Your task to perform on an android device: turn off location history Image 0: 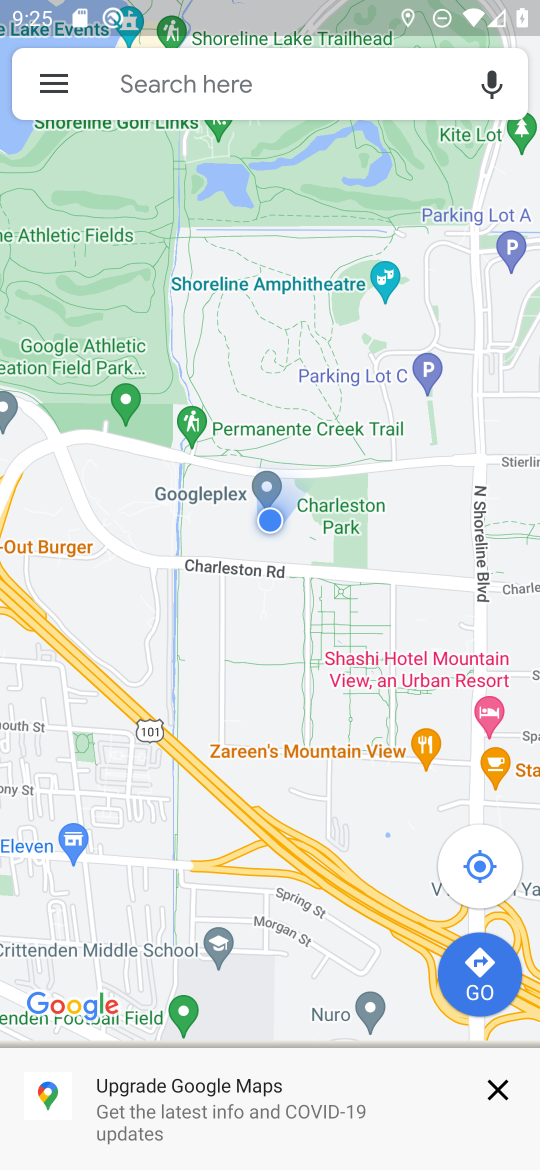
Step 0: press home button
Your task to perform on an android device: turn off location history Image 1: 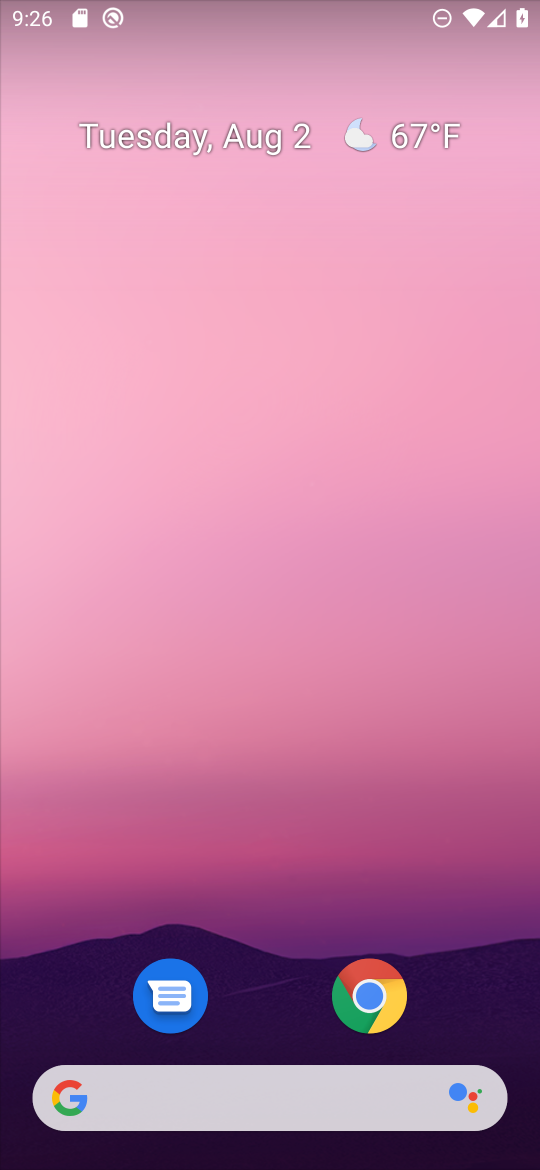
Step 1: drag from (246, 1003) to (270, 74)
Your task to perform on an android device: turn off location history Image 2: 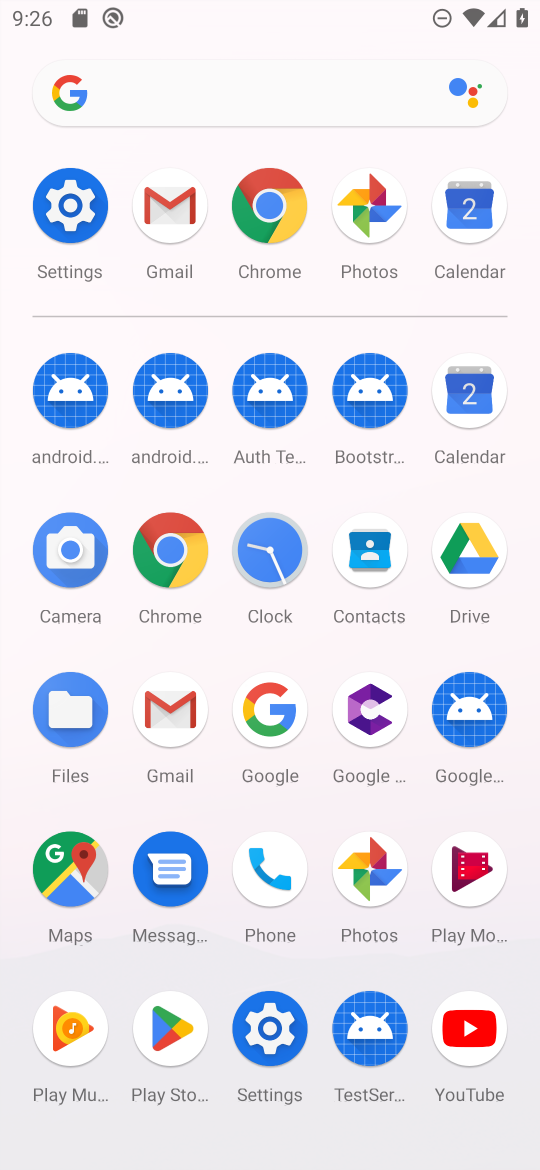
Step 2: click (281, 1017)
Your task to perform on an android device: turn off location history Image 3: 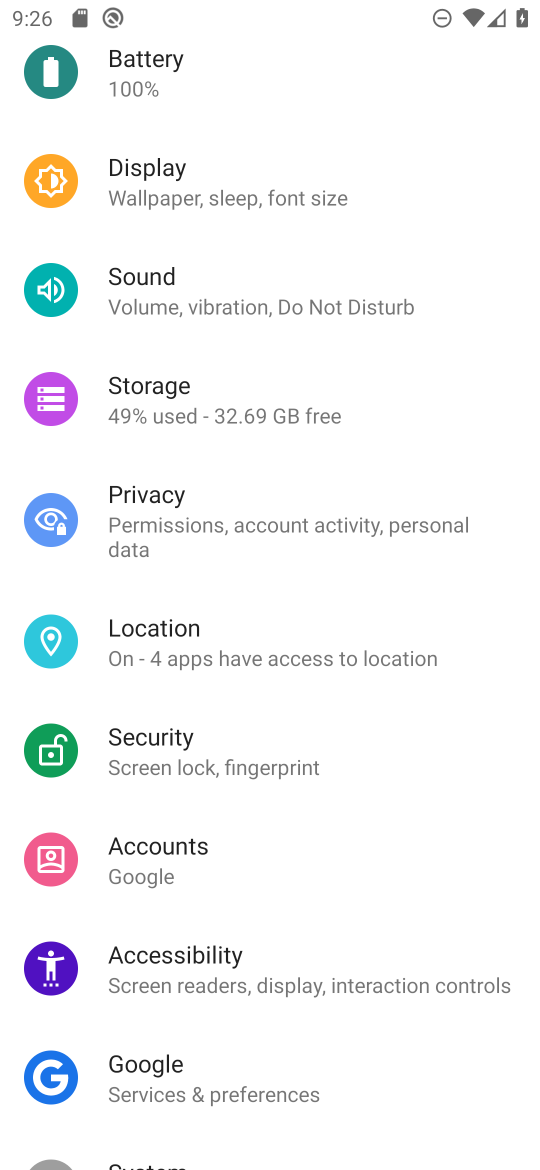
Step 3: press home button
Your task to perform on an android device: turn off location history Image 4: 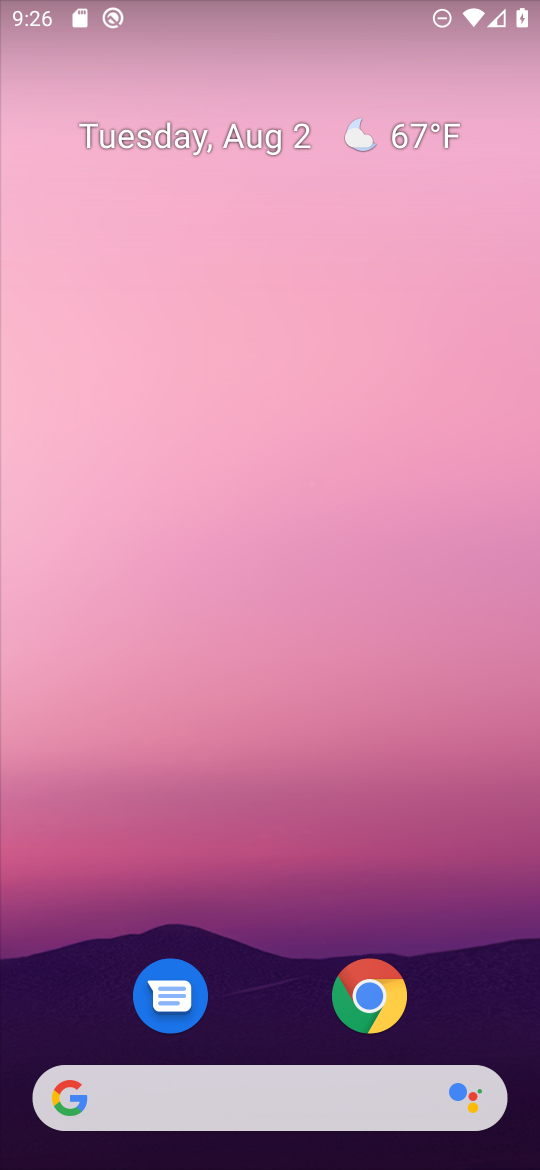
Step 4: drag from (303, 958) to (294, 80)
Your task to perform on an android device: turn off location history Image 5: 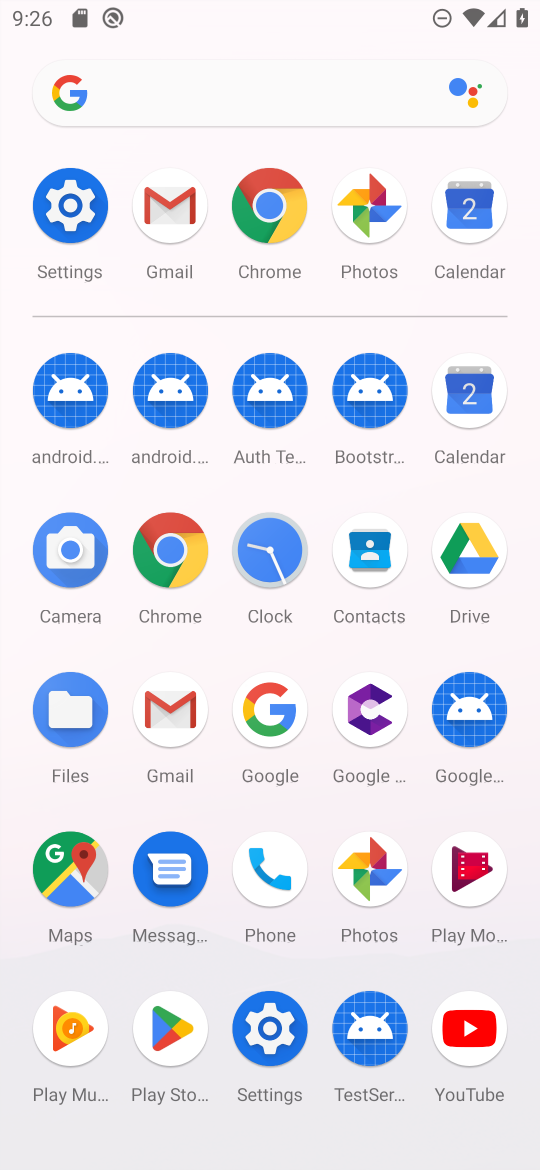
Step 5: click (85, 851)
Your task to perform on an android device: turn off location history Image 6: 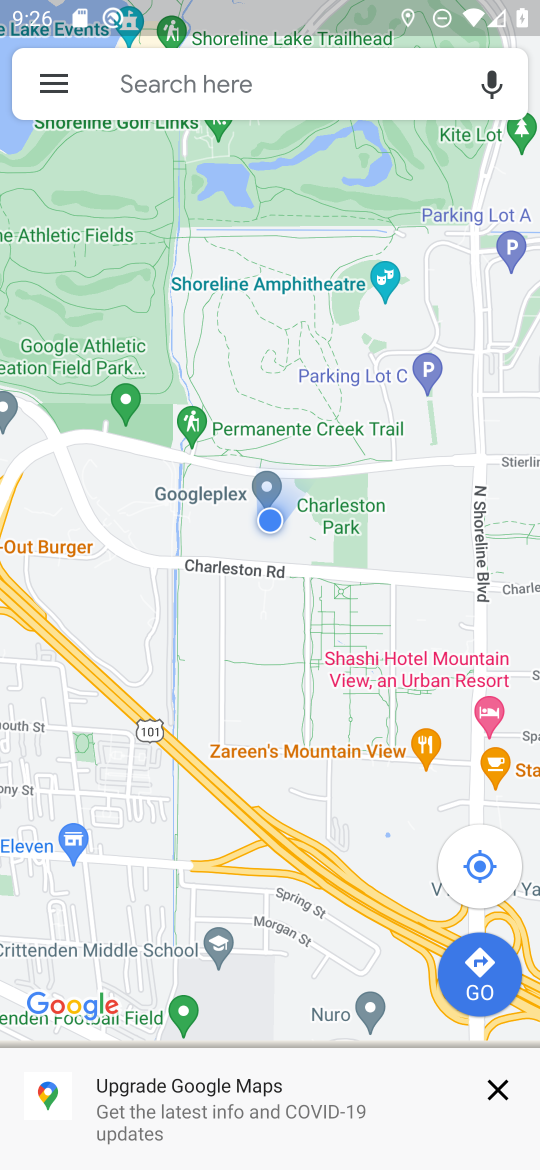
Step 6: click (52, 79)
Your task to perform on an android device: turn off location history Image 7: 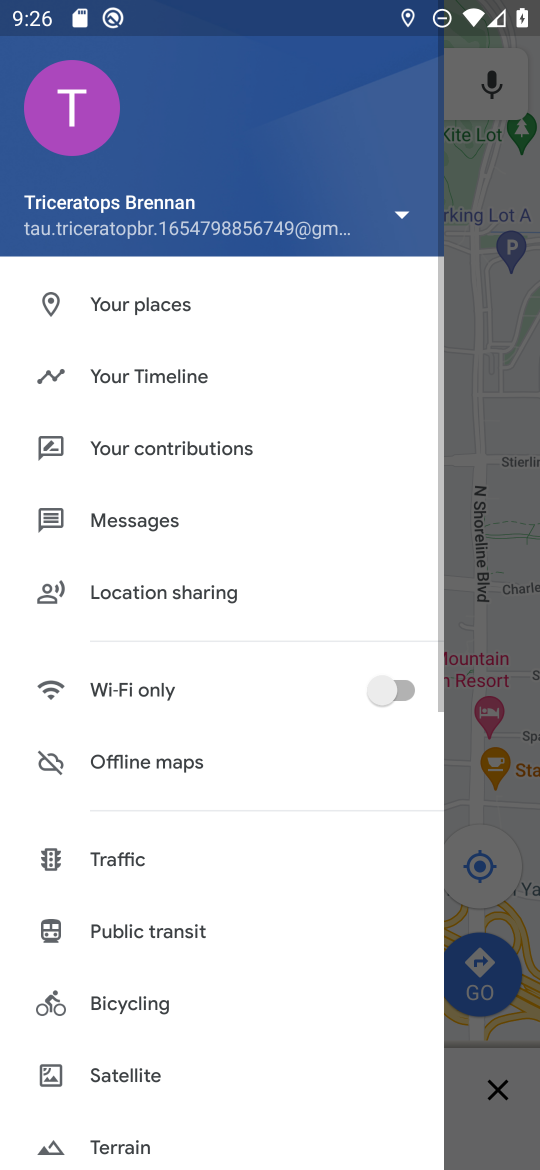
Step 7: click (124, 369)
Your task to perform on an android device: turn off location history Image 8: 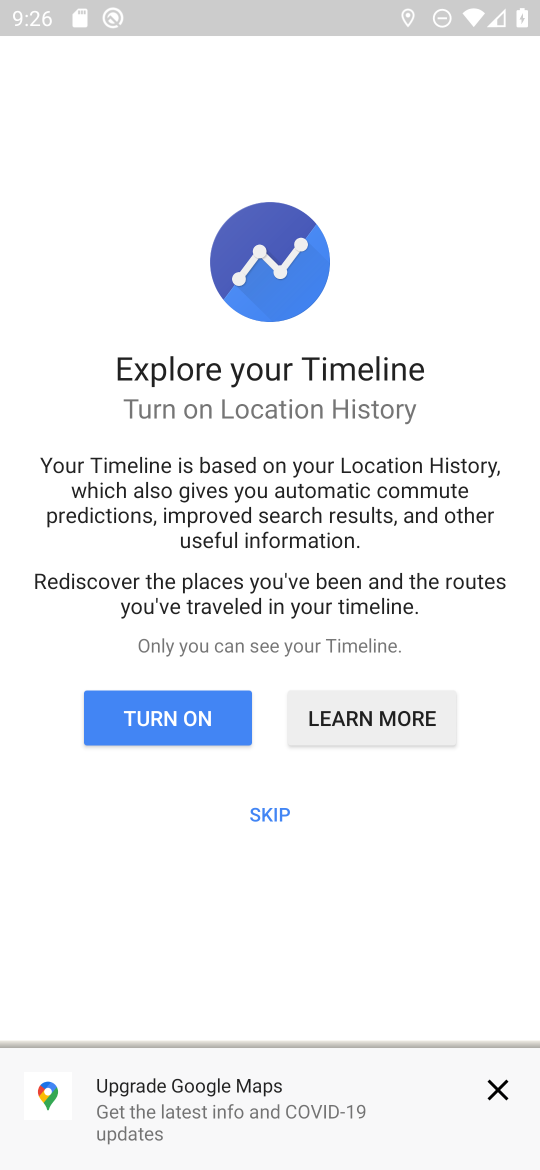
Step 8: click (177, 710)
Your task to perform on an android device: turn off location history Image 9: 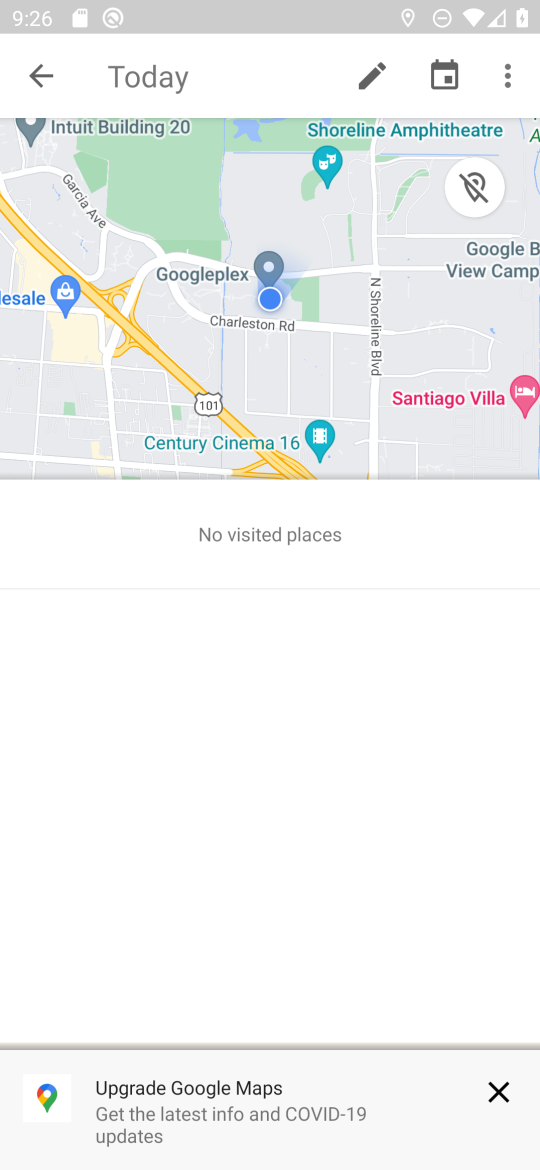
Step 9: click (509, 72)
Your task to perform on an android device: turn off location history Image 10: 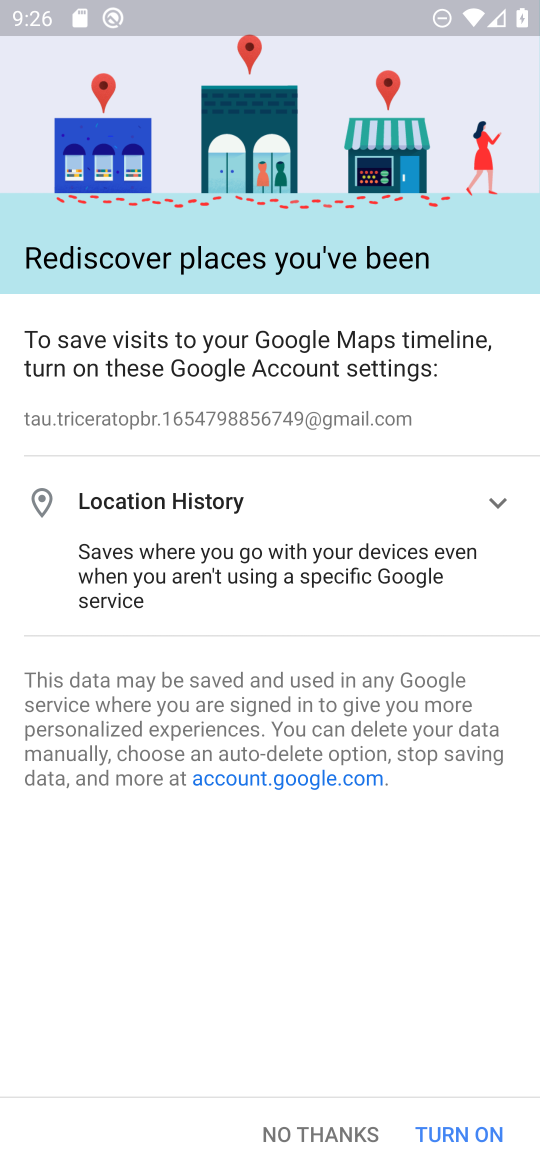
Step 10: click (468, 1122)
Your task to perform on an android device: turn off location history Image 11: 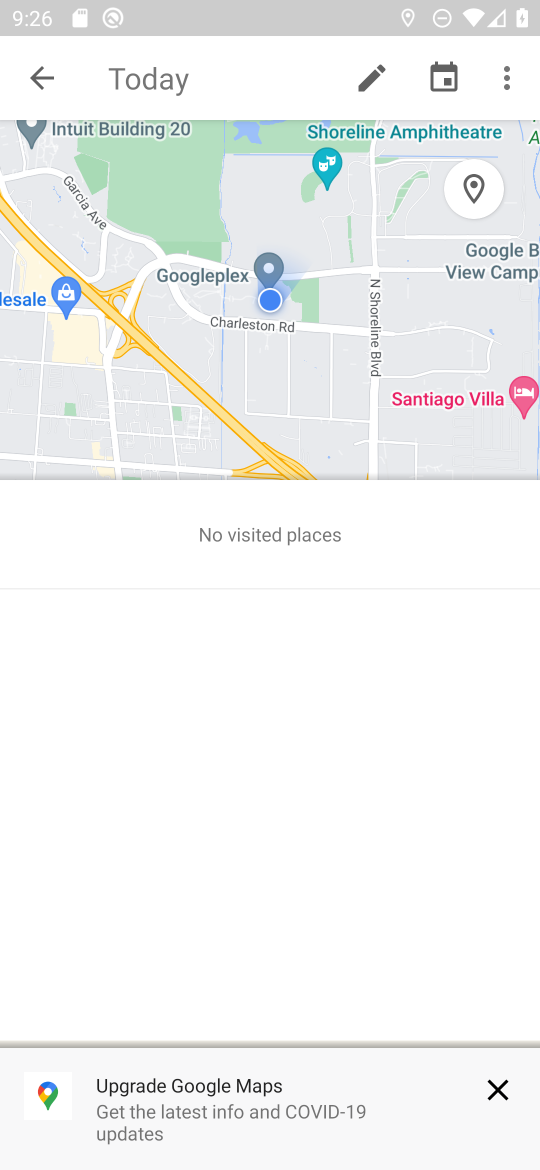
Step 11: click (506, 64)
Your task to perform on an android device: turn off location history Image 12: 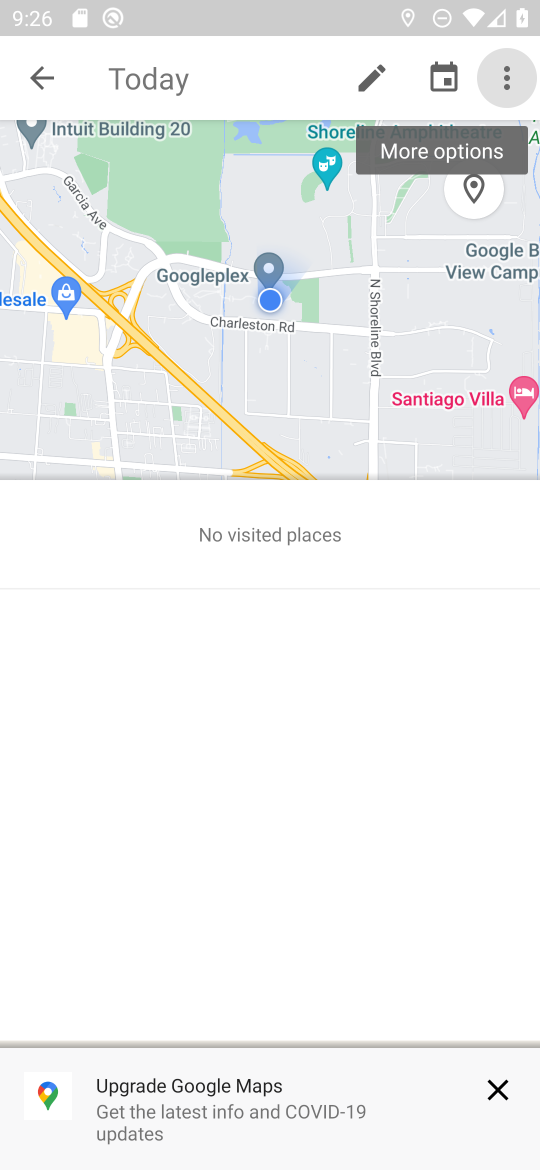
Step 12: click (503, 75)
Your task to perform on an android device: turn off location history Image 13: 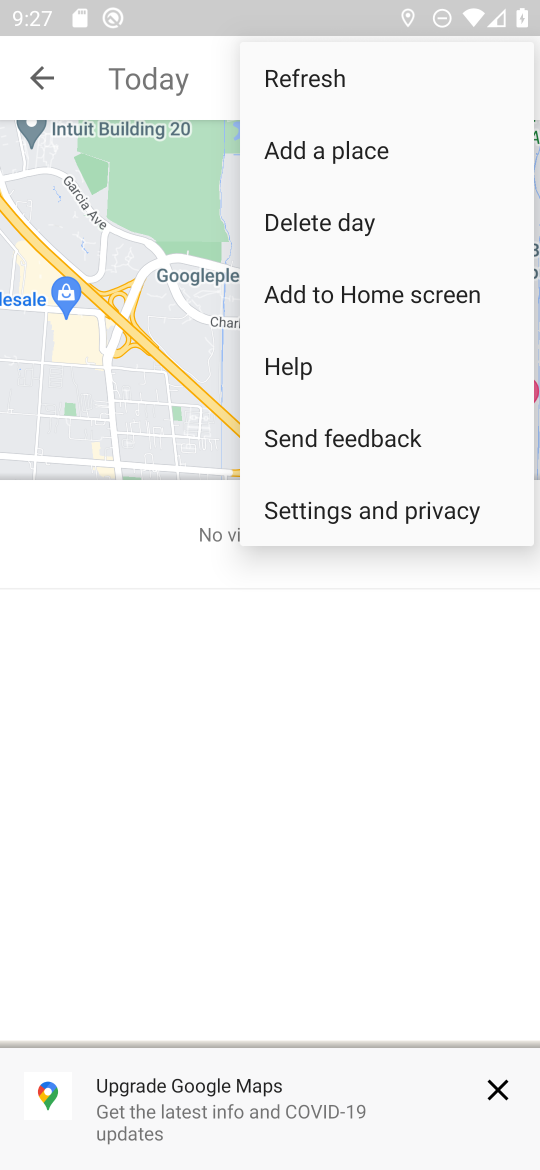
Step 13: click (344, 505)
Your task to perform on an android device: turn off location history Image 14: 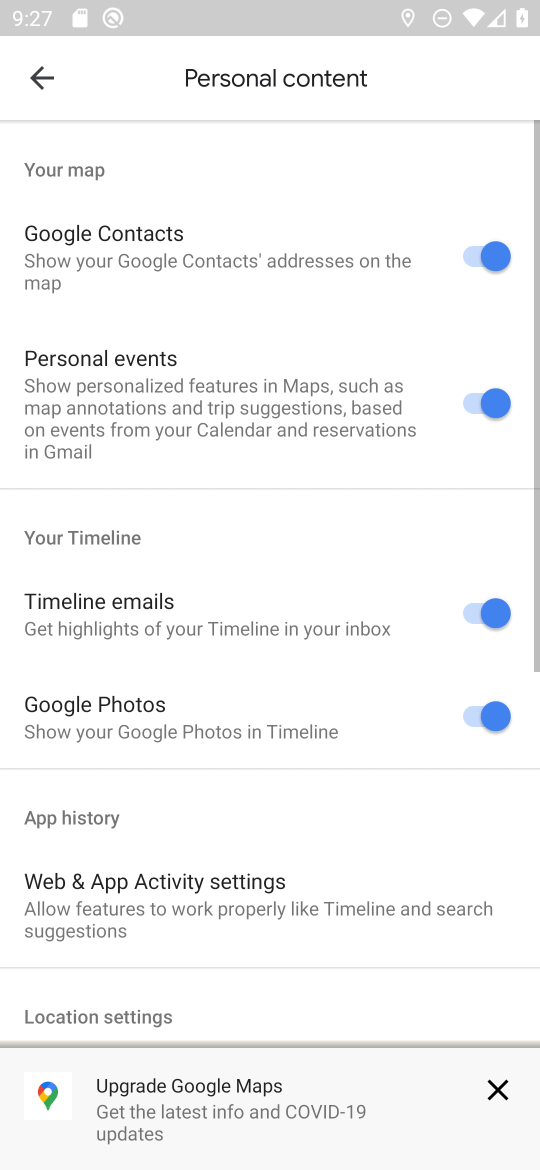
Step 14: drag from (303, 856) to (305, 130)
Your task to perform on an android device: turn off location history Image 15: 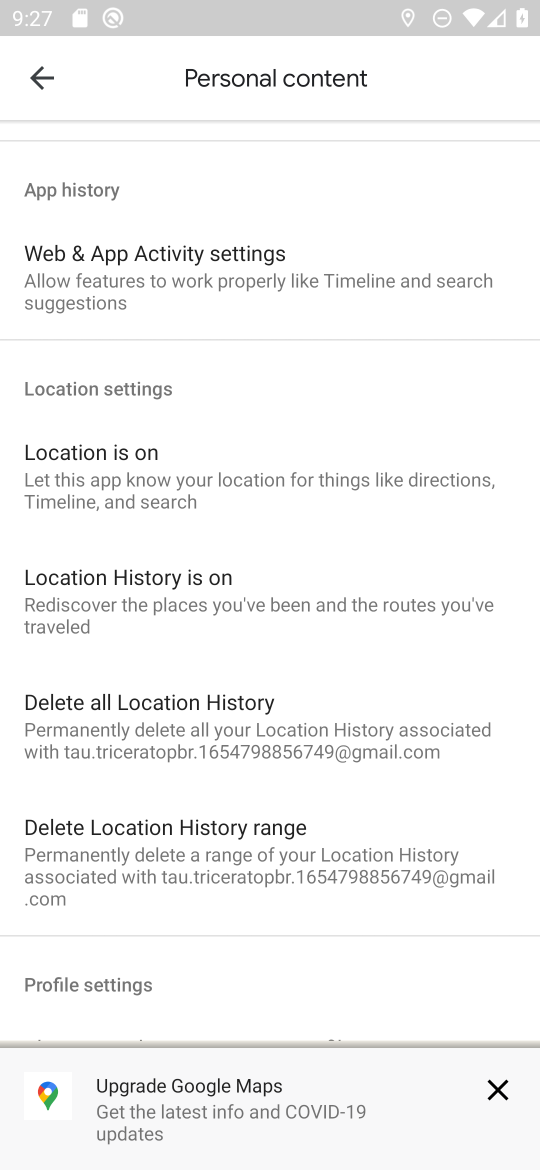
Step 15: click (119, 573)
Your task to perform on an android device: turn off location history Image 16: 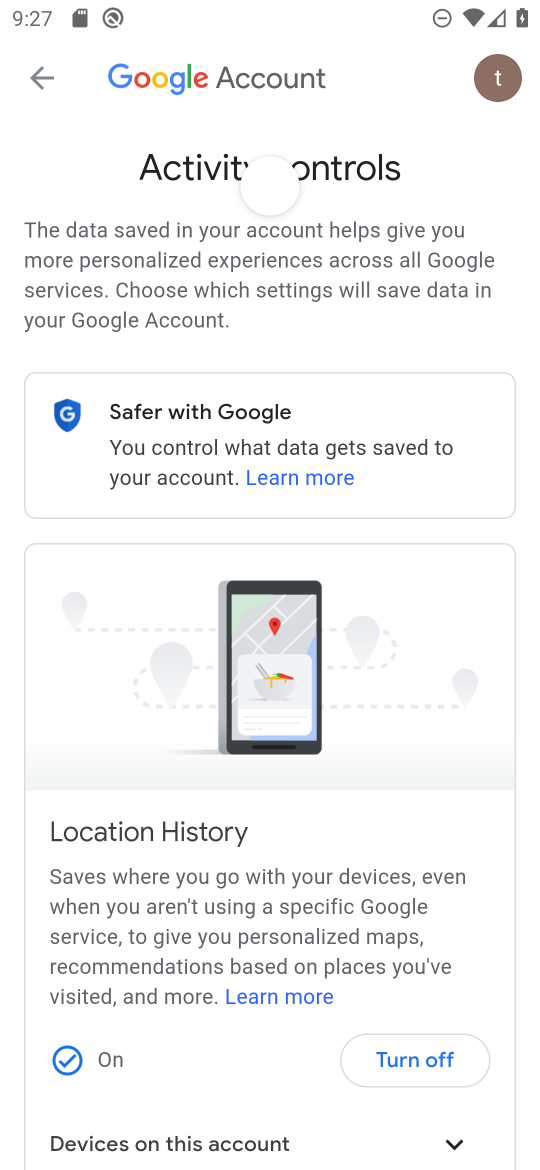
Step 16: click (431, 1045)
Your task to perform on an android device: turn off location history Image 17: 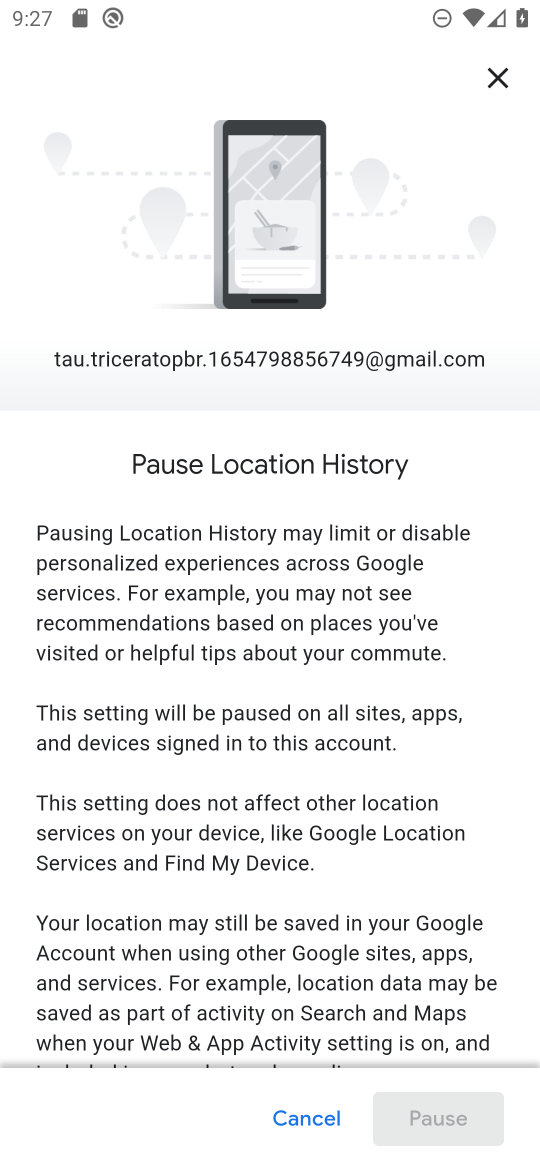
Step 17: drag from (353, 1001) to (339, 107)
Your task to perform on an android device: turn off location history Image 18: 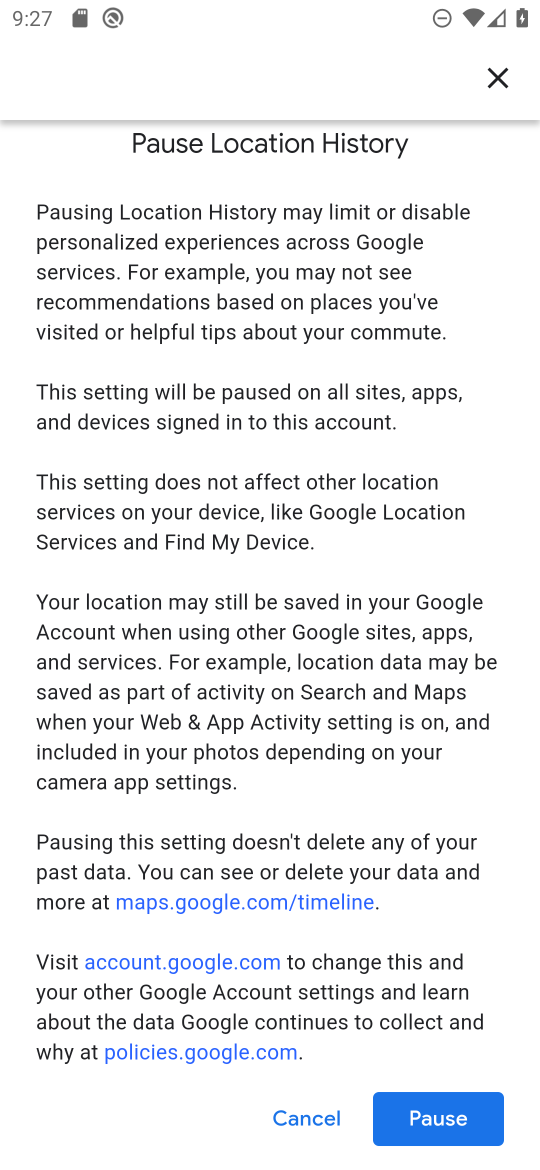
Step 18: drag from (347, 943) to (331, 246)
Your task to perform on an android device: turn off location history Image 19: 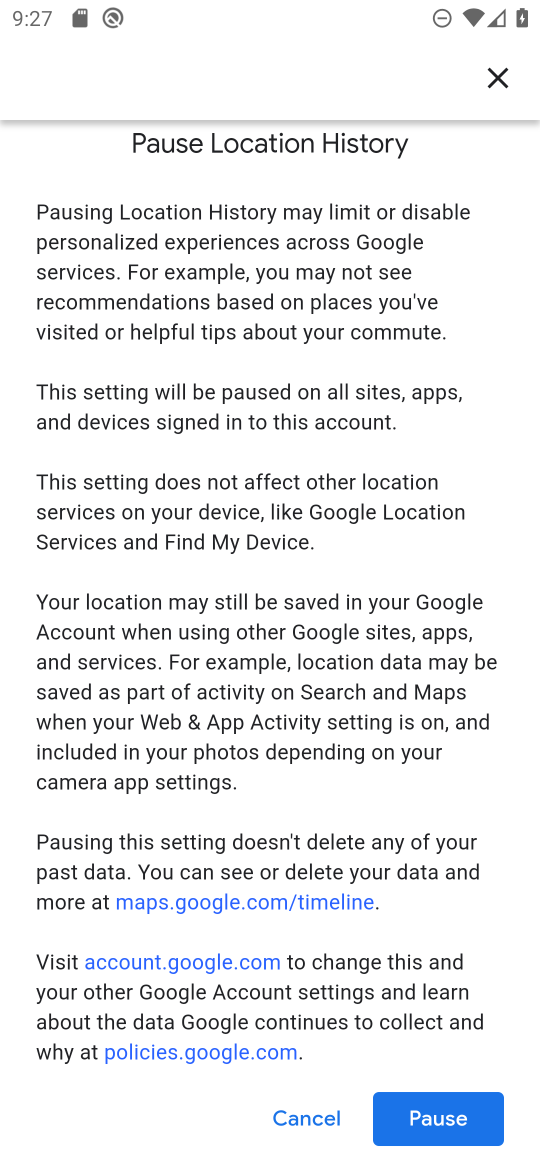
Step 19: click (469, 1123)
Your task to perform on an android device: turn off location history Image 20: 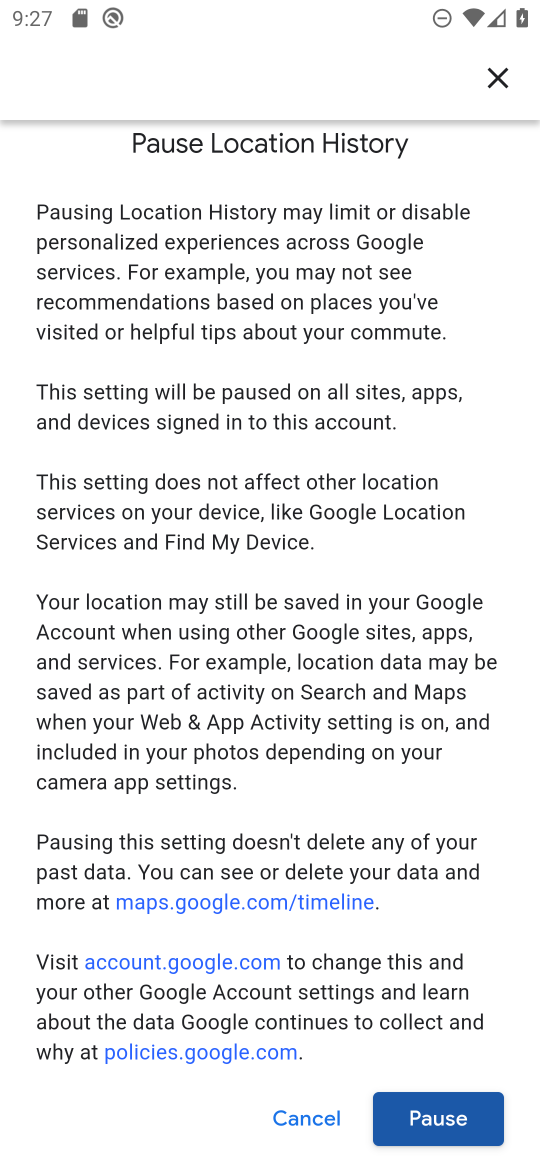
Step 20: click (469, 1123)
Your task to perform on an android device: turn off location history Image 21: 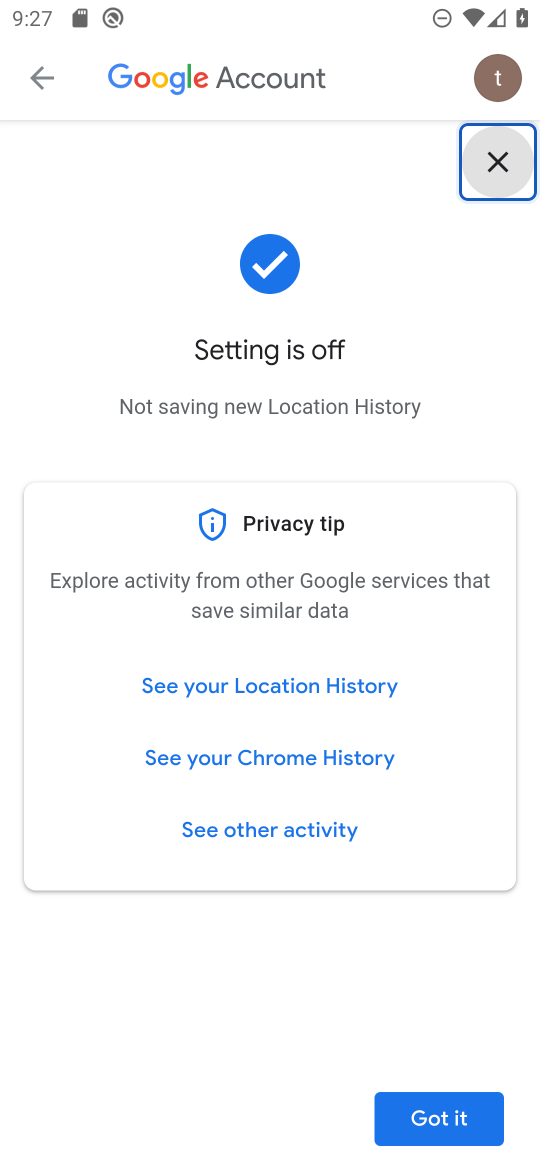
Step 21: click (434, 1119)
Your task to perform on an android device: turn off location history Image 22: 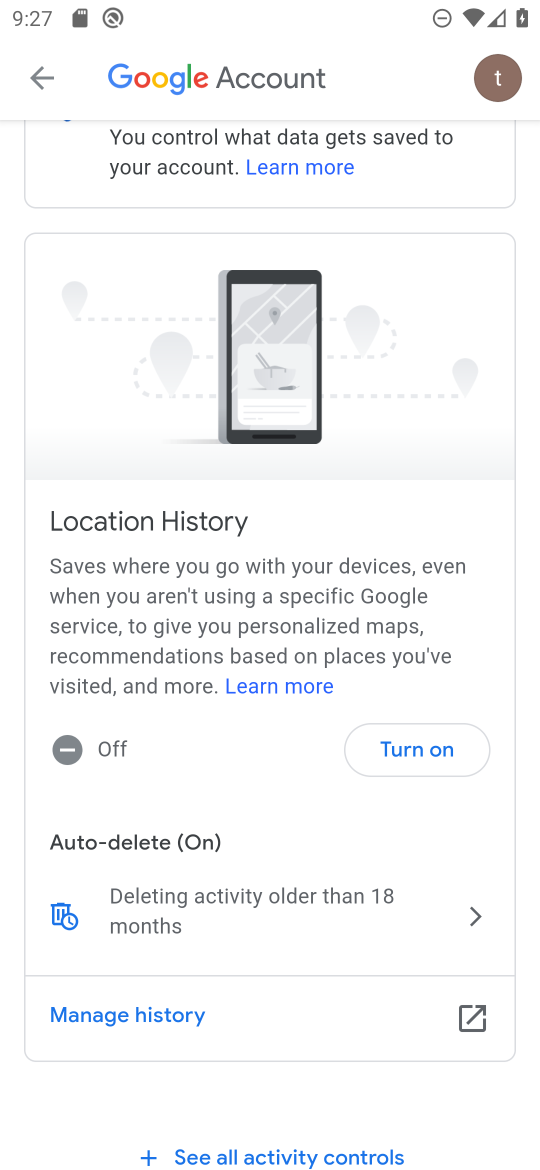
Step 22: click (434, 1119)
Your task to perform on an android device: turn off location history Image 23: 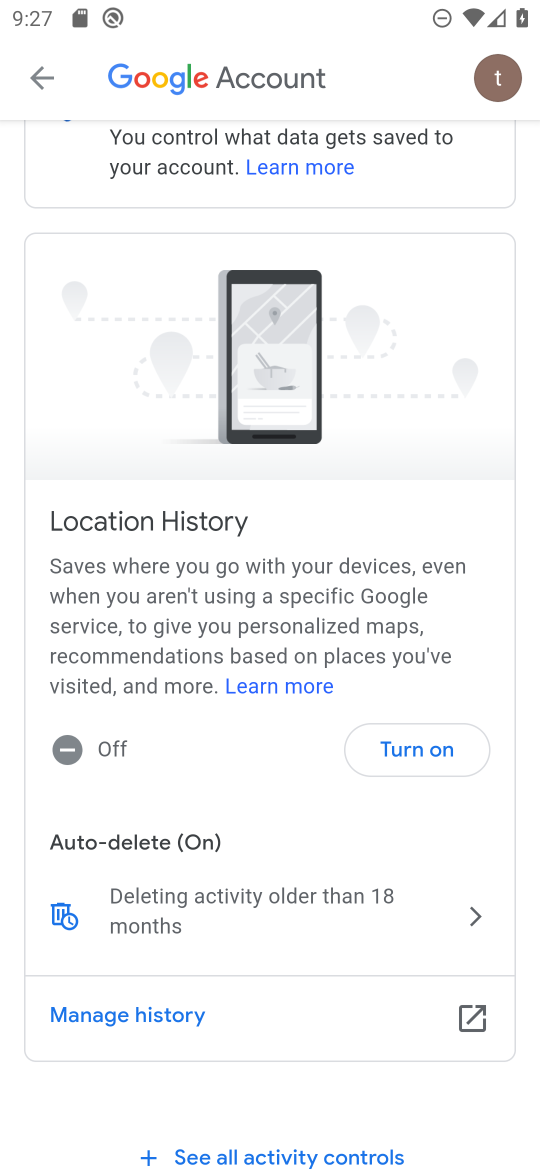
Step 23: task complete